Your task to perform on an android device: Open network settings Image 0: 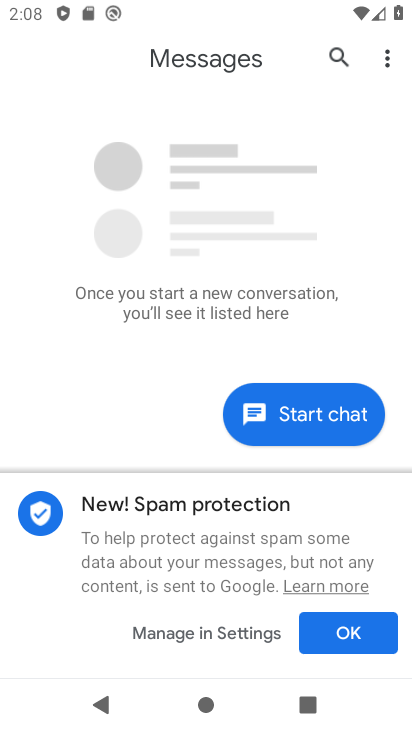
Step 0: click (193, 443)
Your task to perform on an android device: Open network settings Image 1: 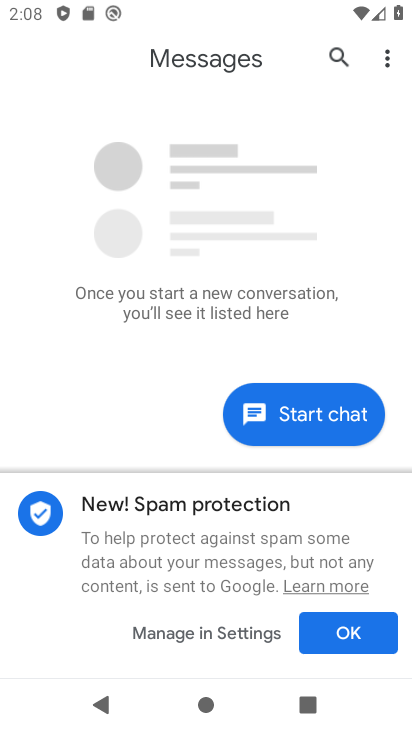
Step 1: drag from (240, 6) to (190, 686)
Your task to perform on an android device: Open network settings Image 2: 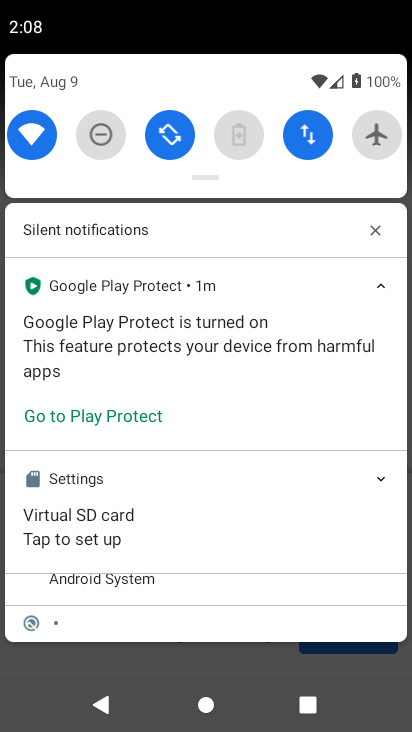
Step 2: click (307, 126)
Your task to perform on an android device: Open network settings Image 3: 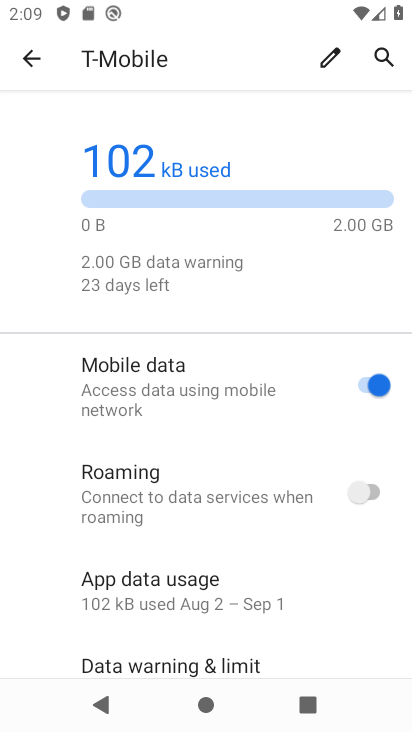
Step 3: task complete